Your task to perform on an android device: Find coffee shops on Maps Image 0: 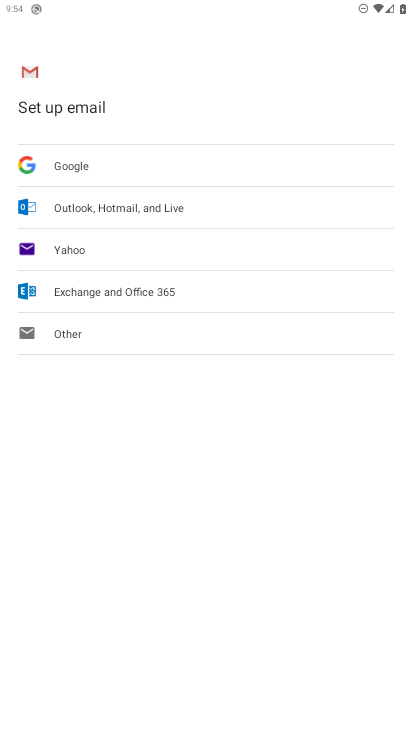
Step 0: press home button
Your task to perform on an android device: Find coffee shops on Maps Image 1: 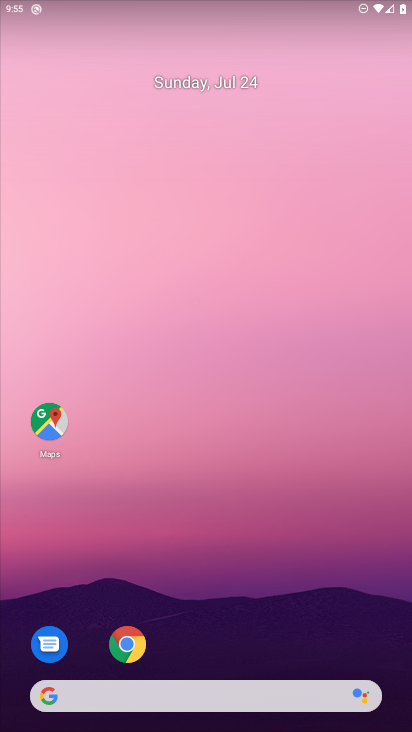
Step 1: click (46, 413)
Your task to perform on an android device: Find coffee shops on Maps Image 2: 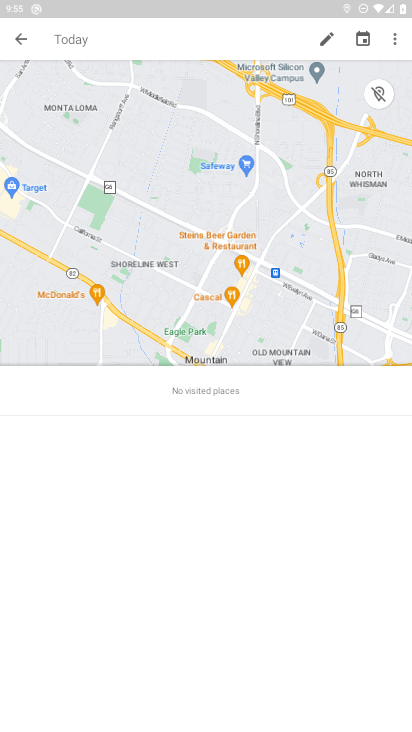
Step 2: click (15, 38)
Your task to perform on an android device: Find coffee shops on Maps Image 3: 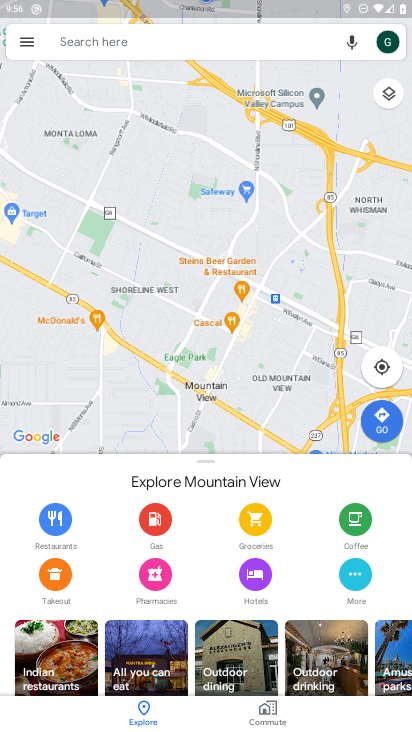
Step 3: click (184, 43)
Your task to perform on an android device: Find coffee shops on Maps Image 4: 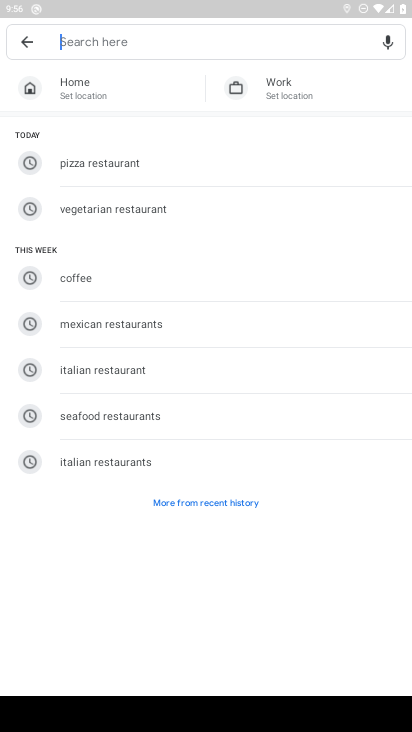
Step 4: type " coffee shops "
Your task to perform on an android device: Find coffee shops on Maps Image 5: 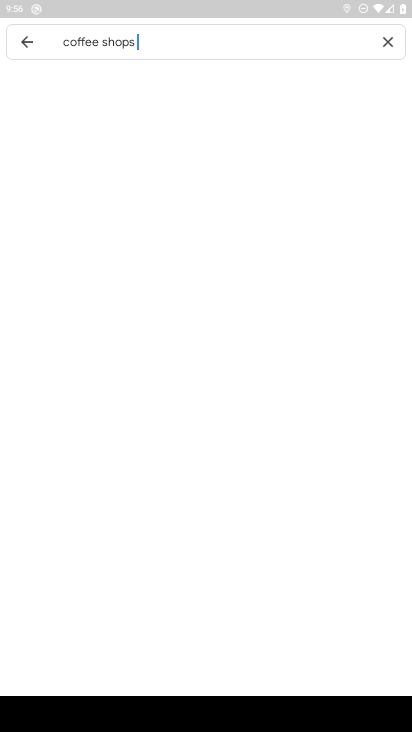
Step 5: type ""
Your task to perform on an android device: Find coffee shops on Maps Image 6: 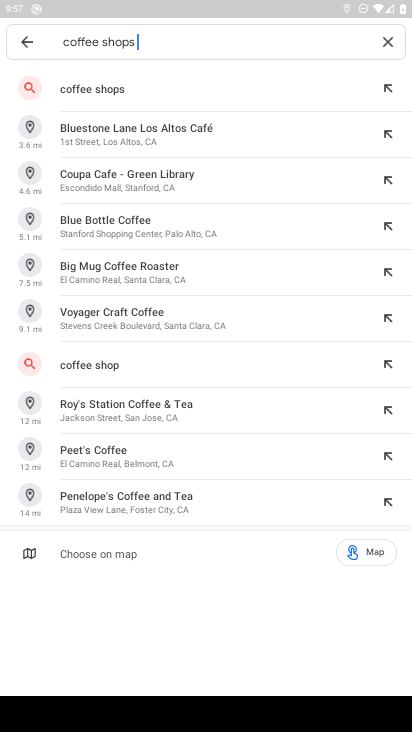
Step 6: click (77, 92)
Your task to perform on an android device: Find coffee shops on Maps Image 7: 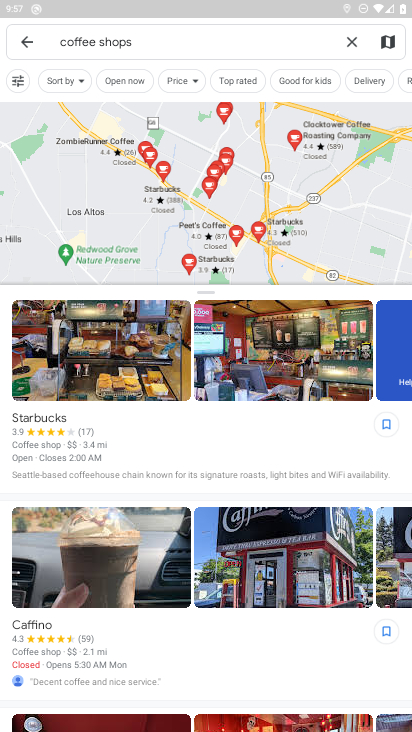
Step 7: task complete